Your task to perform on an android device: change keyboard looks Image 0: 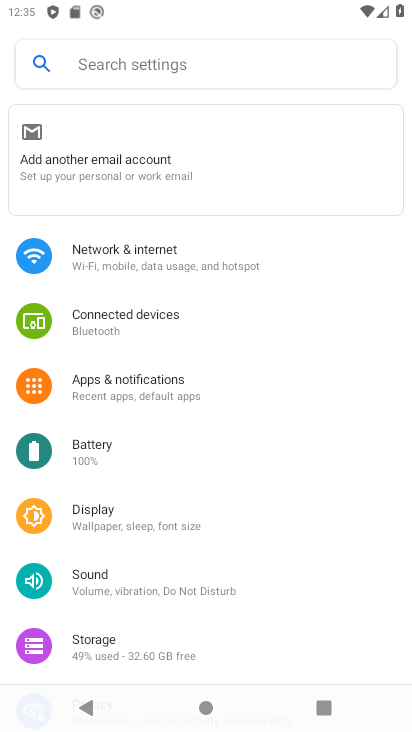
Step 0: drag from (183, 663) to (188, 233)
Your task to perform on an android device: change keyboard looks Image 1: 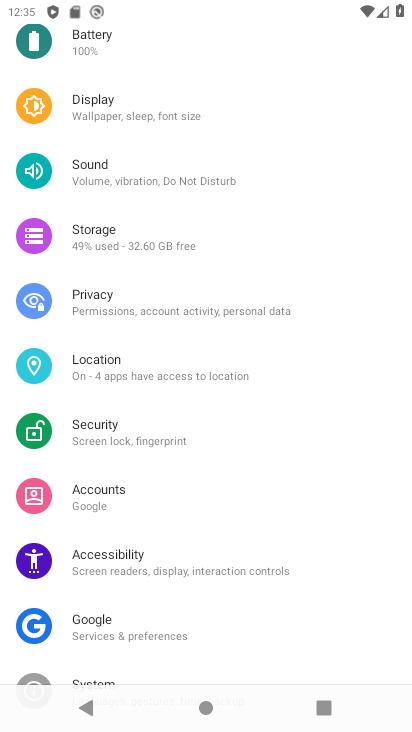
Step 1: drag from (157, 660) to (152, 300)
Your task to perform on an android device: change keyboard looks Image 2: 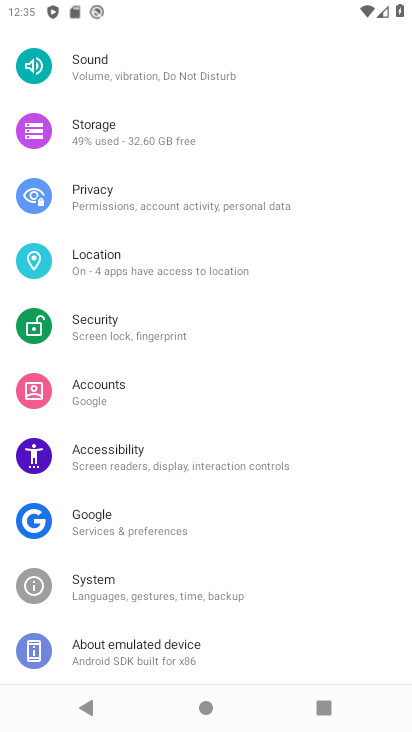
Step 2: click (91, 588)
Your task to perform on an android device: change keyboard looks Image 3: 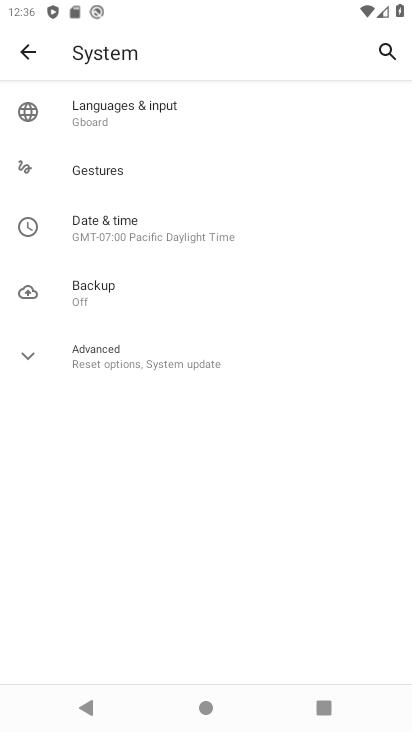
Step 3: click (111, 117)
Your task to perform on an android device: change keyboard looks Image 4: 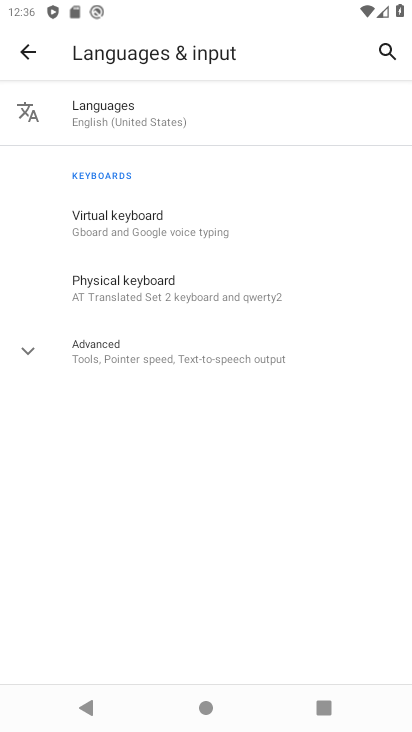
Step 4: click (122, 226)
Your task to perform on an android device: change keyboard looks Image 5: 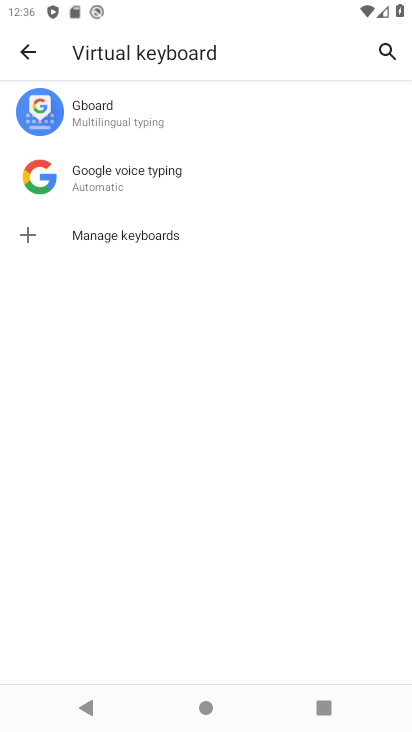
Step 5: click (111, 115)
Your task to perform on an android device: change keyboard looks Image 6: 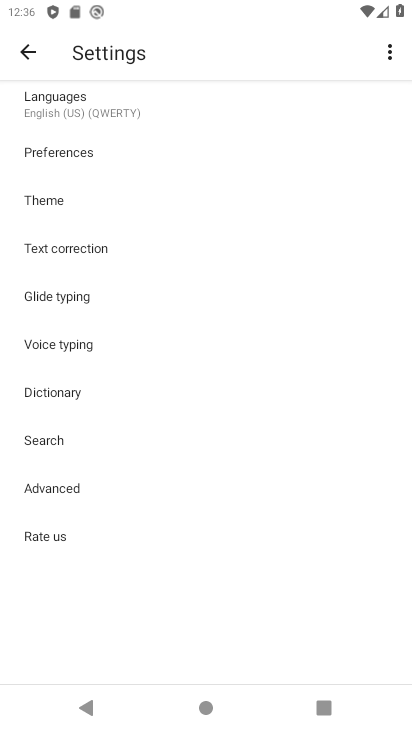
Step 6: click (42, 199)
Your task to perform on an android device: change keyboard looks Image 7: 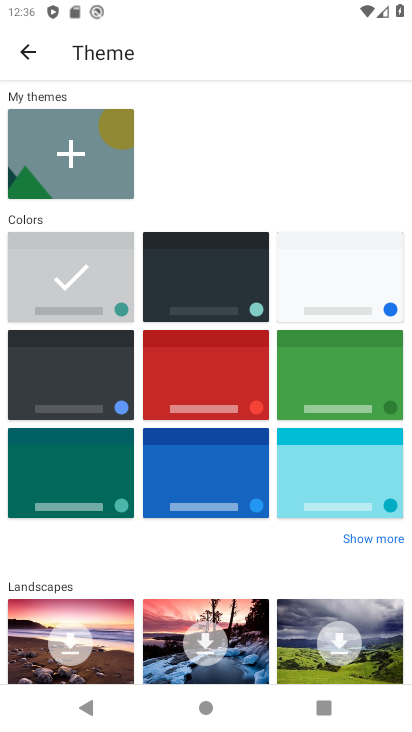
Step 7: click (210, 267)
Your task to perform on an android device: change keyboard looks Image 8: 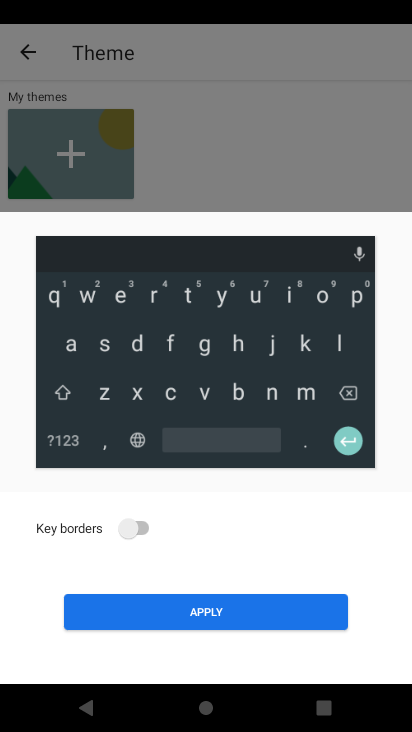
Step 8: click (137, 528)
Your task to perform on an android device: change keyboard looks Image 9: 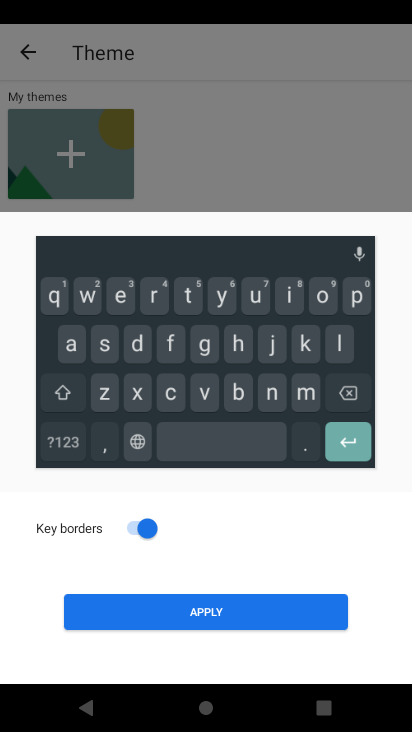
Step 9: click (195, 606)
Your task to perform on an android device: change keyboard looks Image 10: 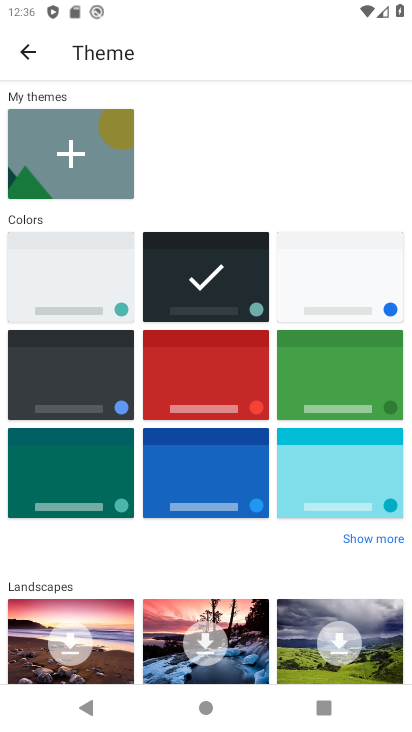
Step 10: task complete